Your task to perform on an android device: turn on javascript in the chrome app Image 0: 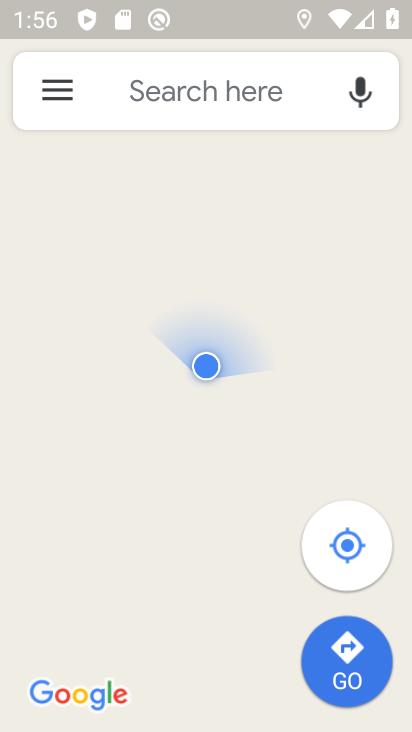
Step 0: press home button
Your task to perform on an android device: turn on javascript in the chrome app Image 1: 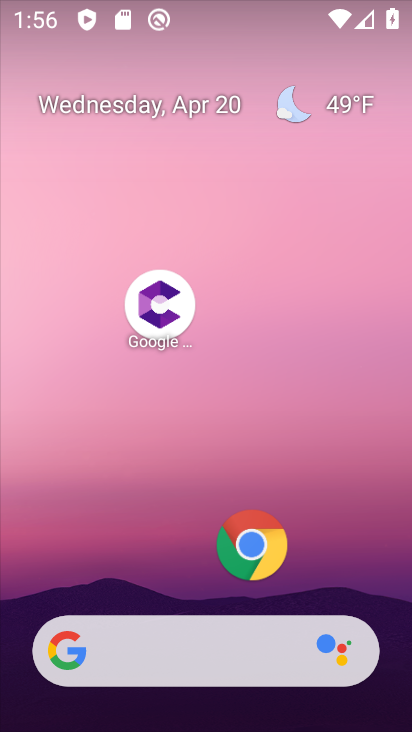
Step 1: click (257, 545)
Your task to perform on an android device: turn on javascript in the chrome app Image 2: 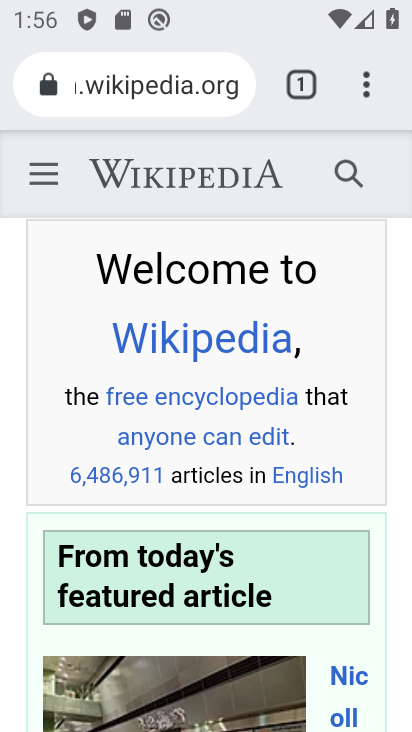
Step 2: click (368, 84)
Your task to perform on an android device: turn on javascript in the chrome app Image 3: 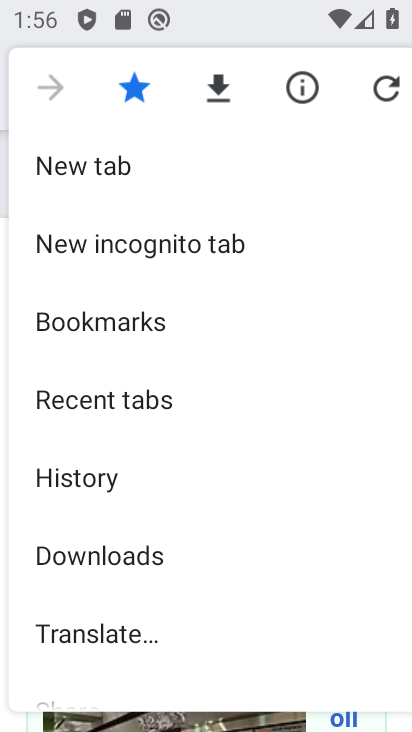
Step 3: drag from (170, 480) to (193, 309)
Your task to perform on an android device: turn on javascript in the chrome app Image 4: 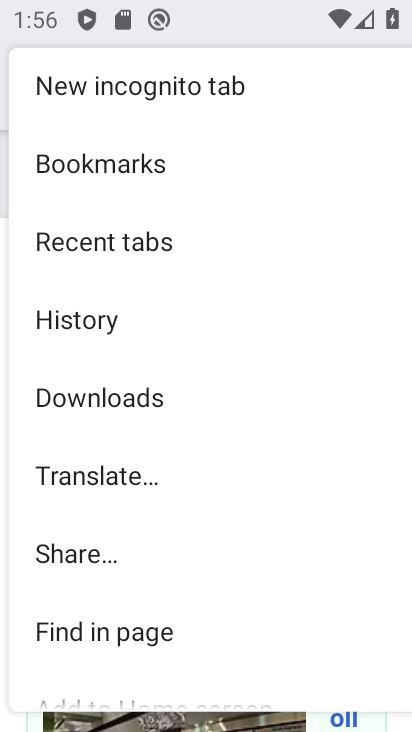
Step 4: drag from (197, 550) to (260, 334)
Your task to perform on an android device: turn on javascript in the chrome app Image 5: 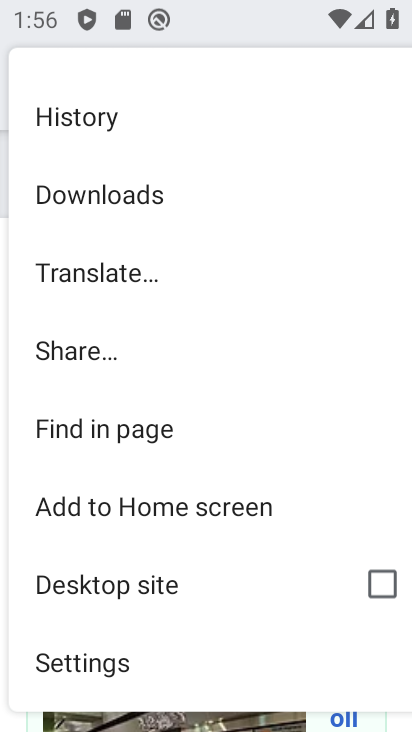
Step 5: drag from (197, 545) to (247, 328)
Your task to perform on an android device: turn on javascript in the chrome app Image 6: 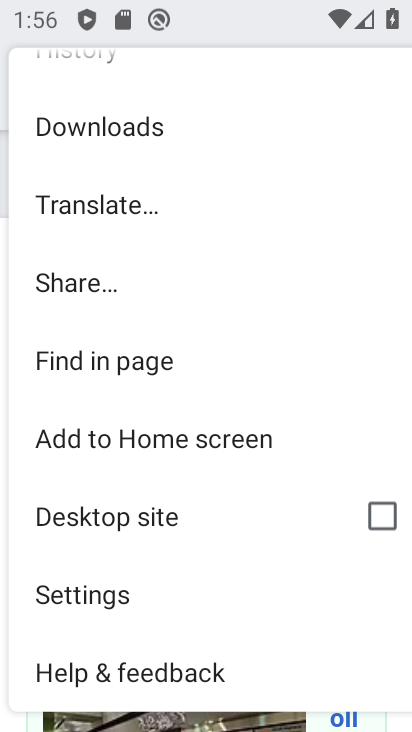
Step 6: click (101, 598)
Your task to perform on an android device: turn on javascript in the chrome app Image 7: 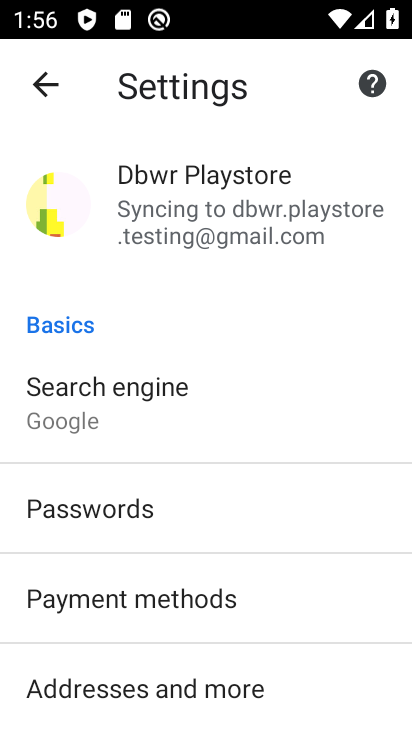
Step 7: drag from (236, 518) to (282, 371)
Your task to perform on an android device: turn on javascript in the chrome app Image 8: 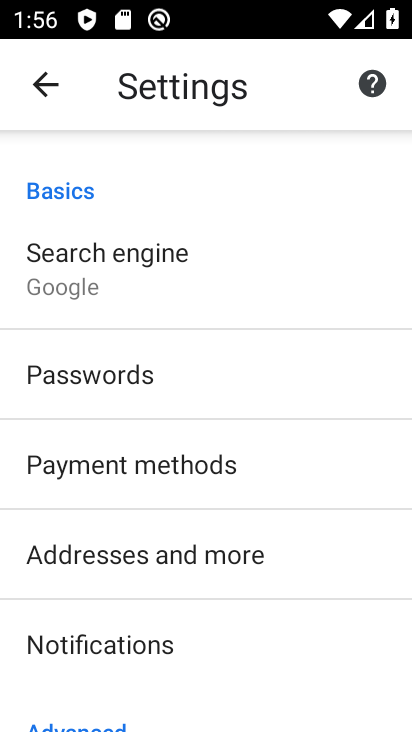
Step 8: drag from (251, 485) to (296, 329)
Your task to perform on an android device: turn on javascript in the chrome app Image 9: 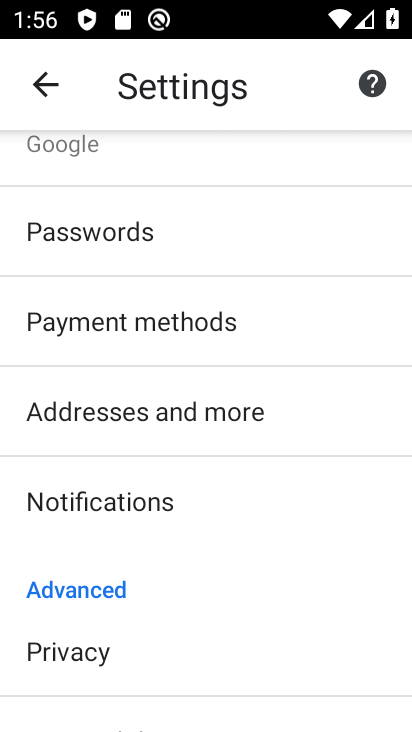
Step 9: drag from (246, 498) to (278, 340)
Your task to perform on an android device: turn on javascript in the chrome app Image 10: 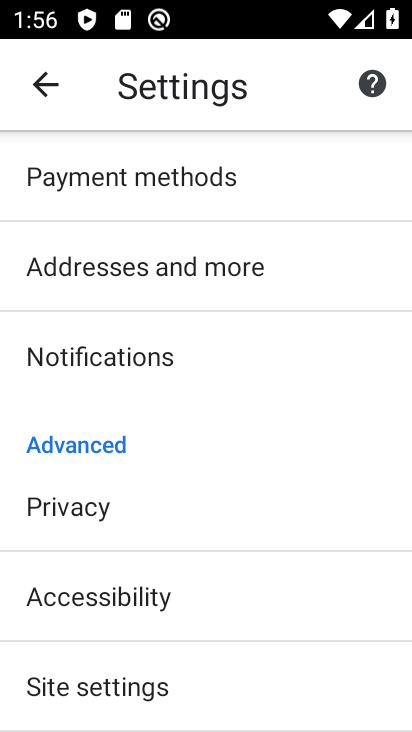
Step 10: drag from (201, 488) to (235, 296)
Your task to perform on an android device: turn on javascript in the chrome app Image 11: 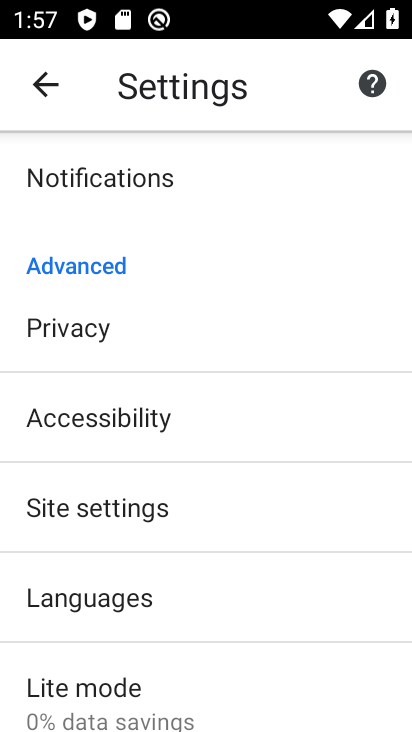
Step 11: click (123, 507)
Your task to perform on an android device: turn on javascript in the chrome app Image 12: 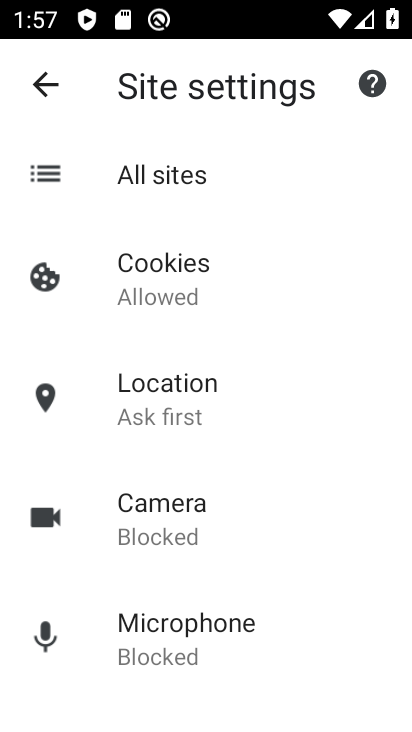
Step 12: drag from (261, 555) to (295, 364)
Your task to perform on an android device: turn on javascript in the chrome app Image 13: 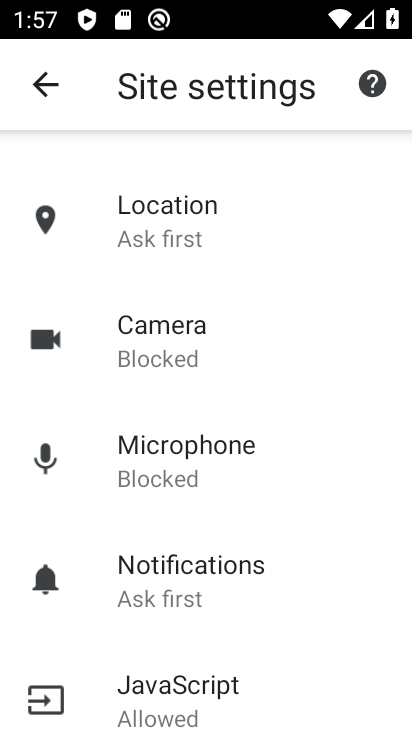
Step 13: drag from (301, 563) to (318, 415)
Your task to perform on an android device: turn on javascript in the chrome app Image 14: 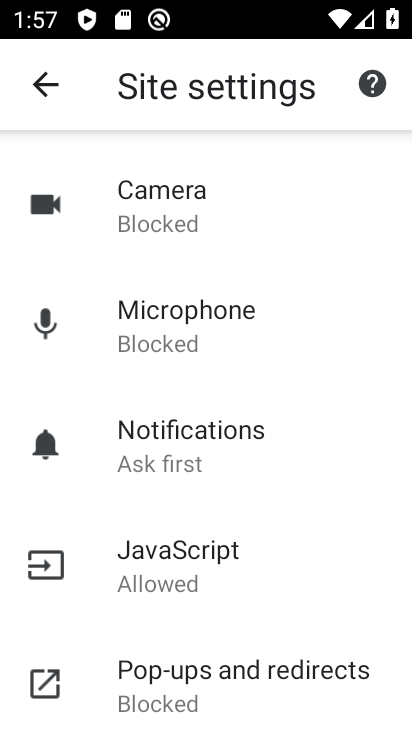
Step 14: click (213, 561)
Your task to perform on an android device: turn on javascript in the chrome app Image 15: 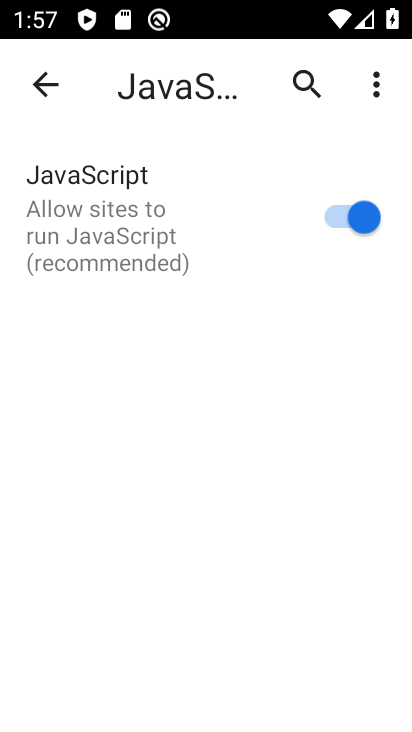
Step 15: task complete